Your task to perform on an android device: Open wifi settings Image 0: 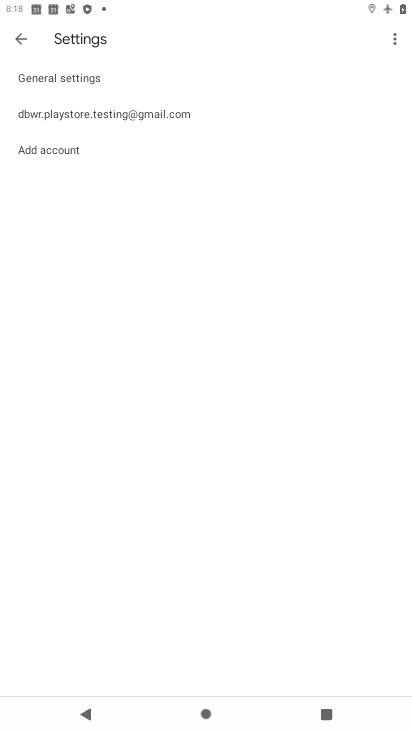
Step 0: press home button
Your task to perform on an android device: Open wifi settings Image 1: 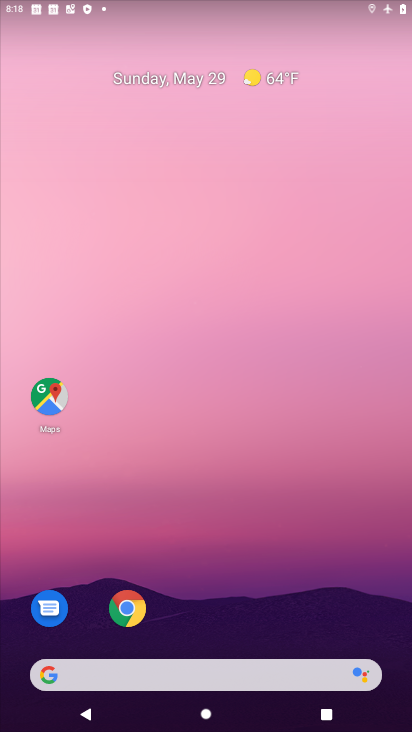
Step 1: drag from (243, 468) to (170, 104)
Your task to perform on an android device: Open wifi settings Image 2: 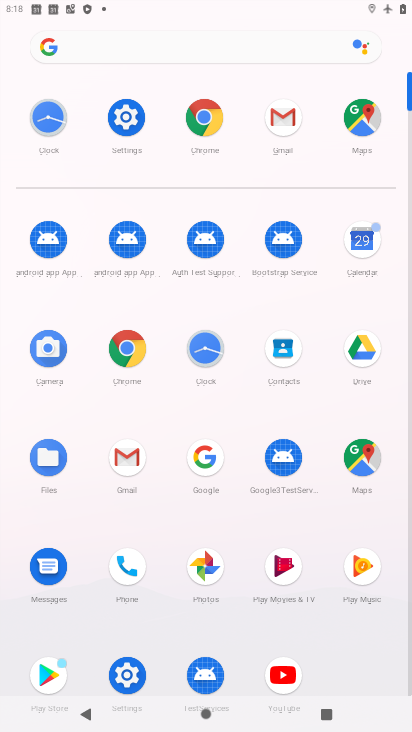
Step 2: click (123, 123)
Your task to perform on an android device: Open wifi settings Image 3: 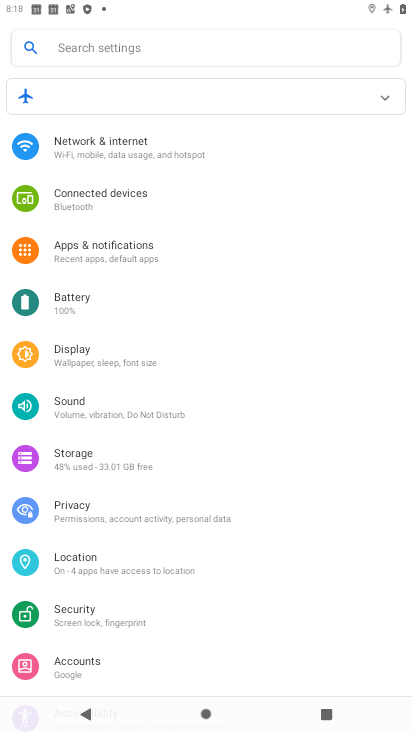
Step 3: click (108, 142)
Your task to perform on an android device: Open wifi settings Image 4: 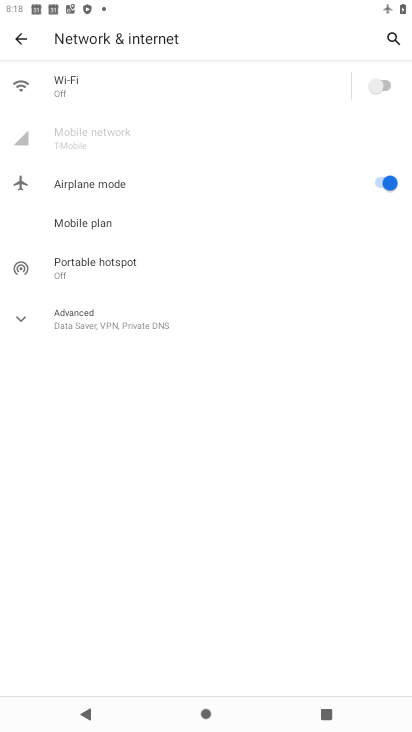
Step 4: click (109, 79)
Your task to perform on an android device: Open wifi settings Image 5: 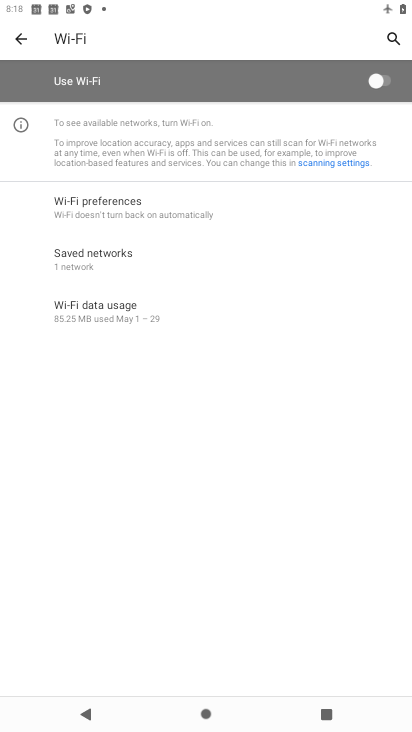
Step 5: task complete